Your task to perform on an android device: Go to location settings Image 0: 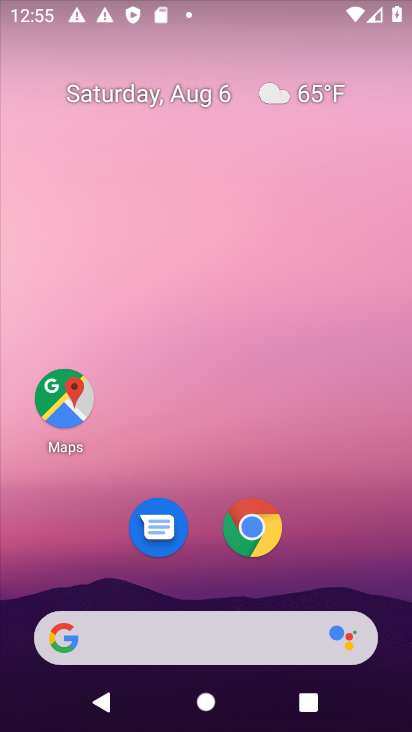
Step 0: drag from (241, 519) to (230, 74)
Your task to perform on an android device: Go to location settings Image 1: 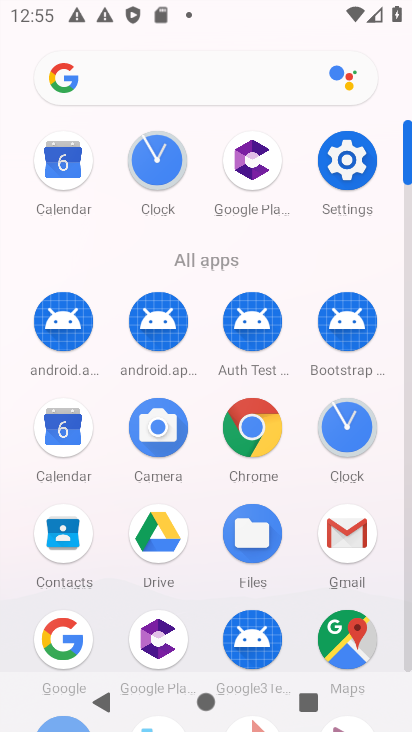
Step 1: click (342, 174)
Your task to perform on an android device: Go to location settings Image 2: 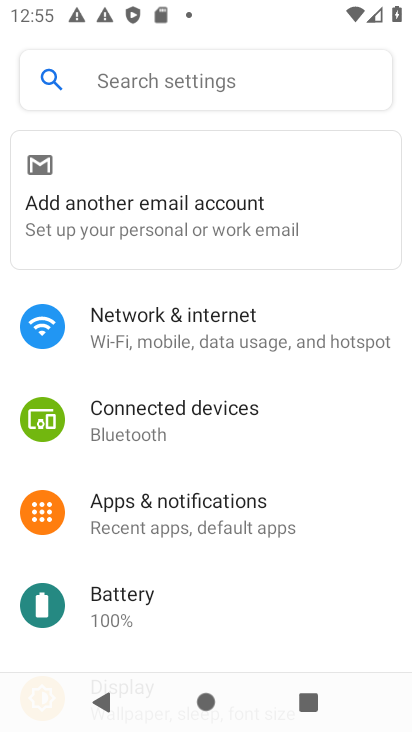
Step 2: drag from (213, 561) to (243, 149)
Your task to perform on an android device: Go to location settings Image 3: 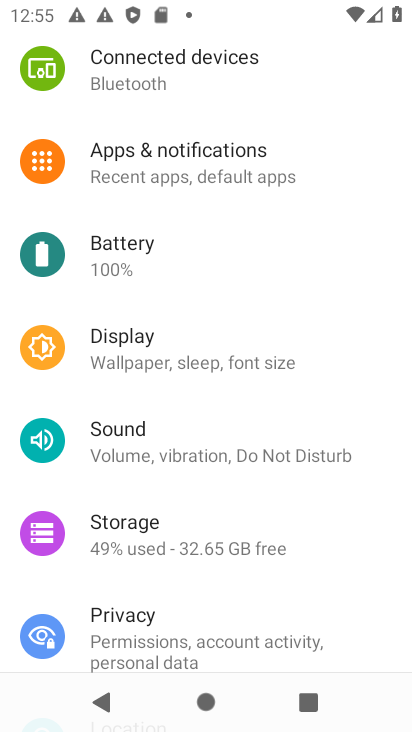
Step 3: drag from (178, 629) to (223, 188)
Your task to perform on an android device: Go to location settings Image 4: 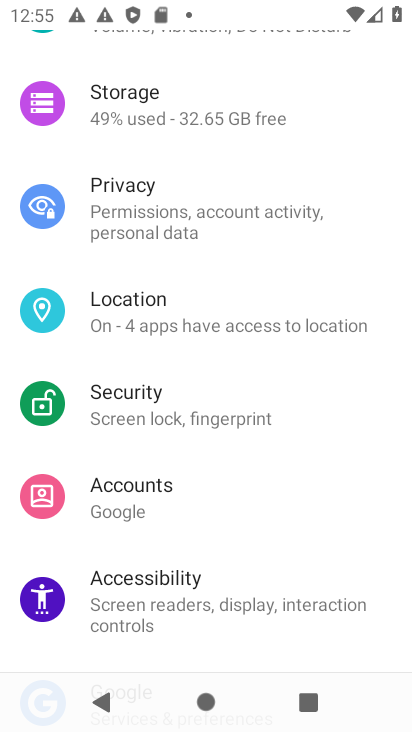
Step 4: click (149, 311)
Your task to perform on an android device: Go to location settings Image 5: 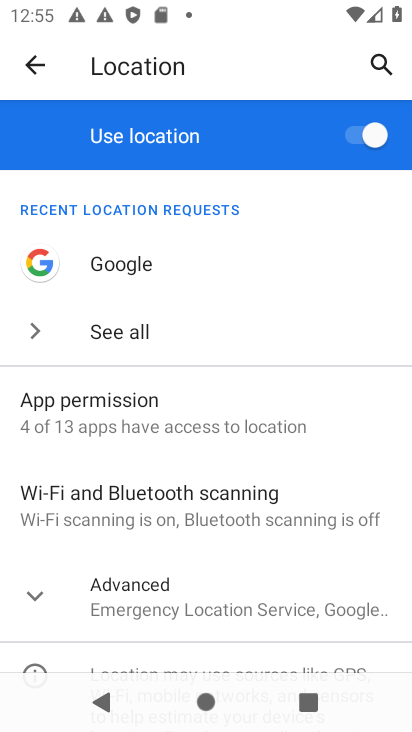
Step 5: task complete